Your task to perform on an android device: What's the news in India? Image 0: 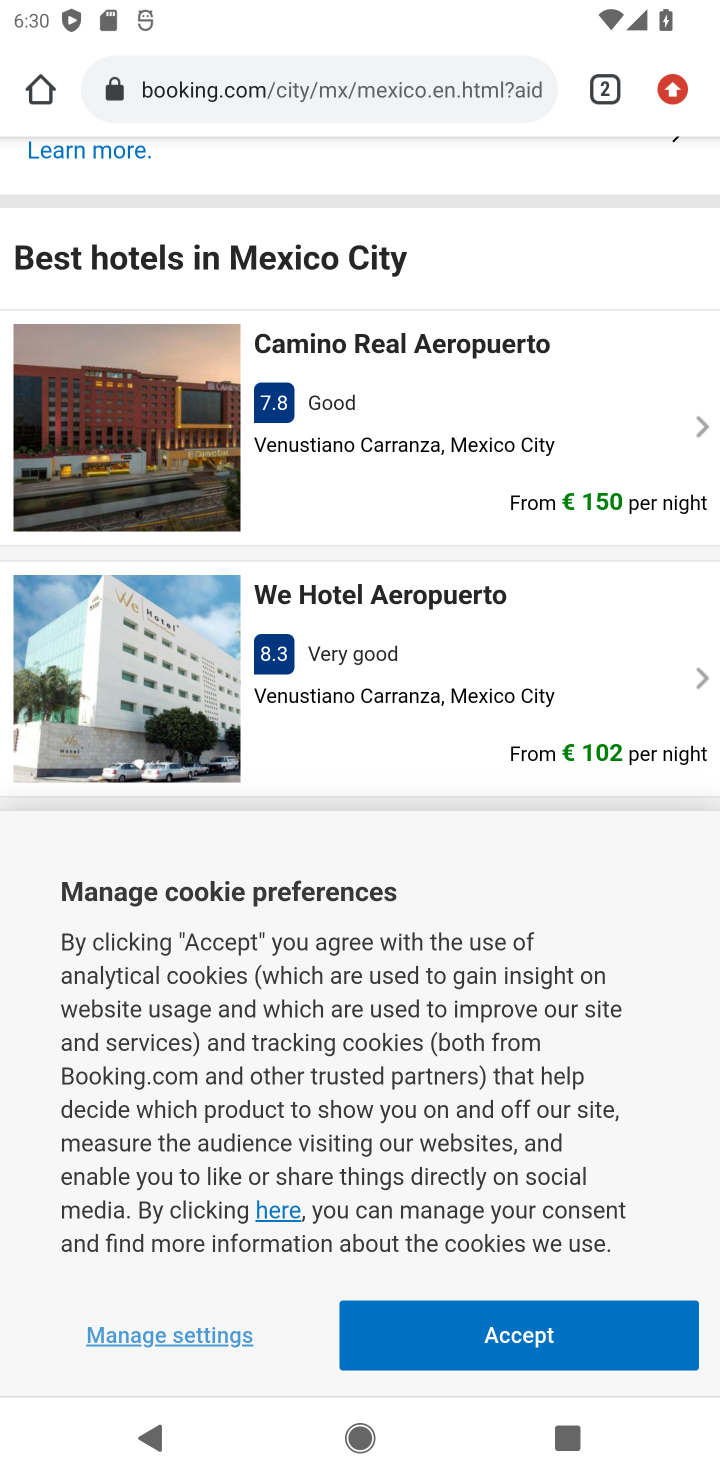
Step 0: click (303, 100)
Your task to perform on an android device: What's the news in India? Image 1: 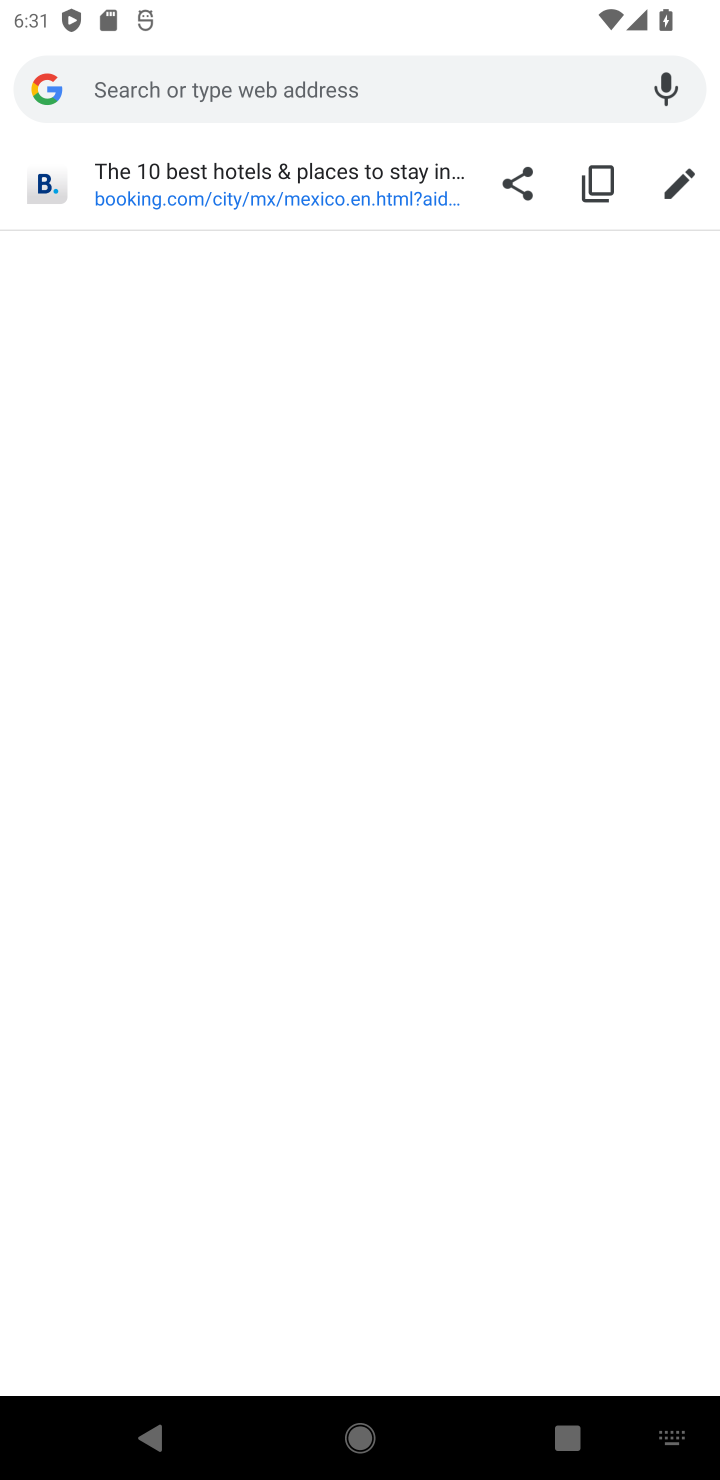
Step 1: type "india news"
Your task to perform on an android device: What's the news in India? Image 2: 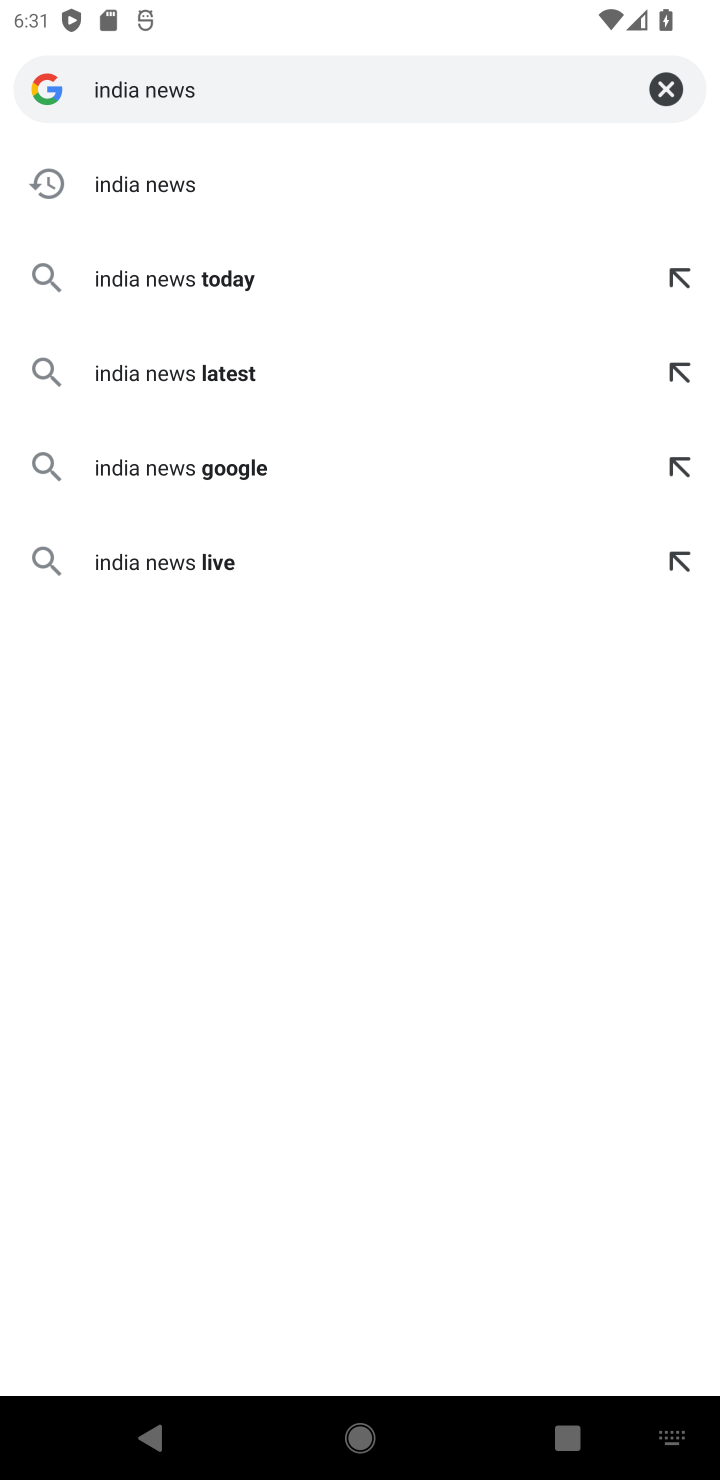
Step 2: click (149, 168)
Your task to perform on an android device: What's the news in India? Image 3: 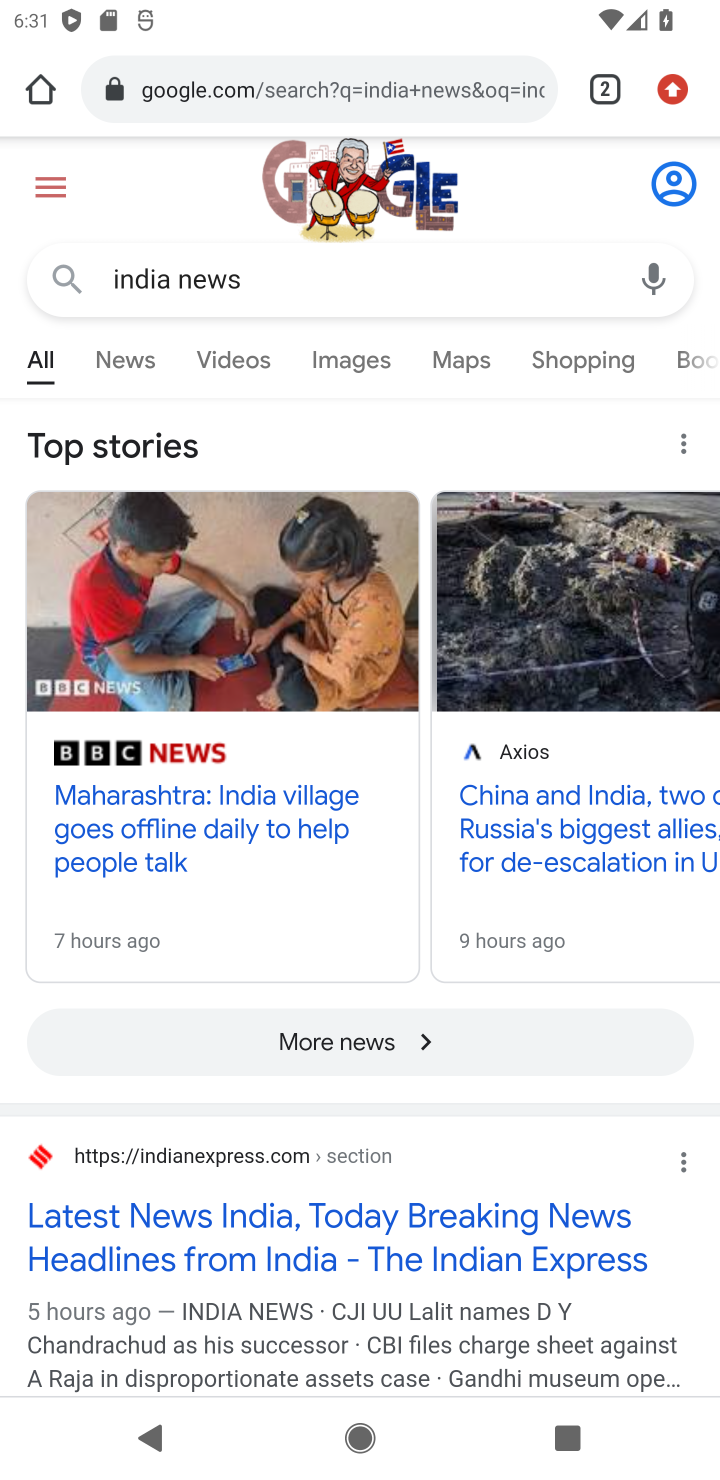
Step 3: click (171, 811)
Your task to perform on an android device: What's the news in India? Image 4: 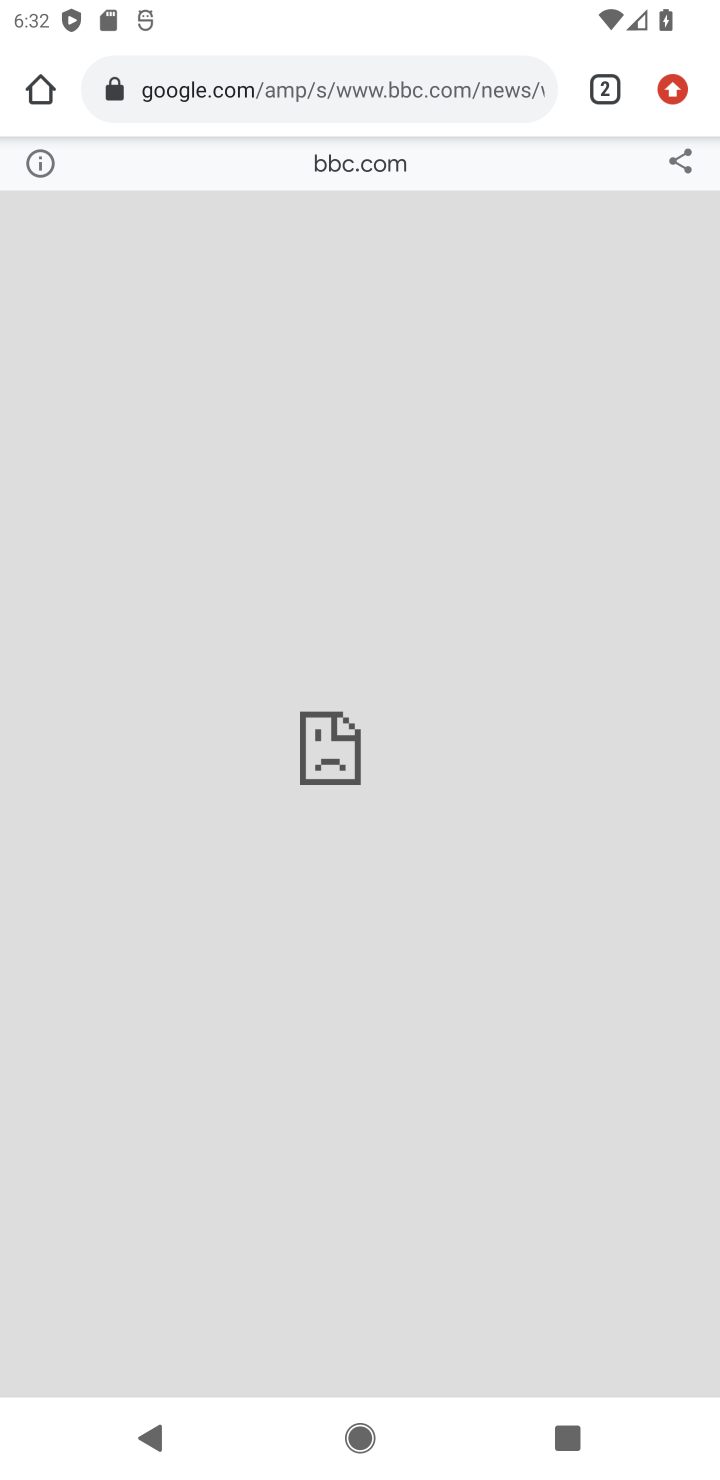
Step 4: click (317, 91)
Your task to perform on an android device: What's the news in India? Image 5: 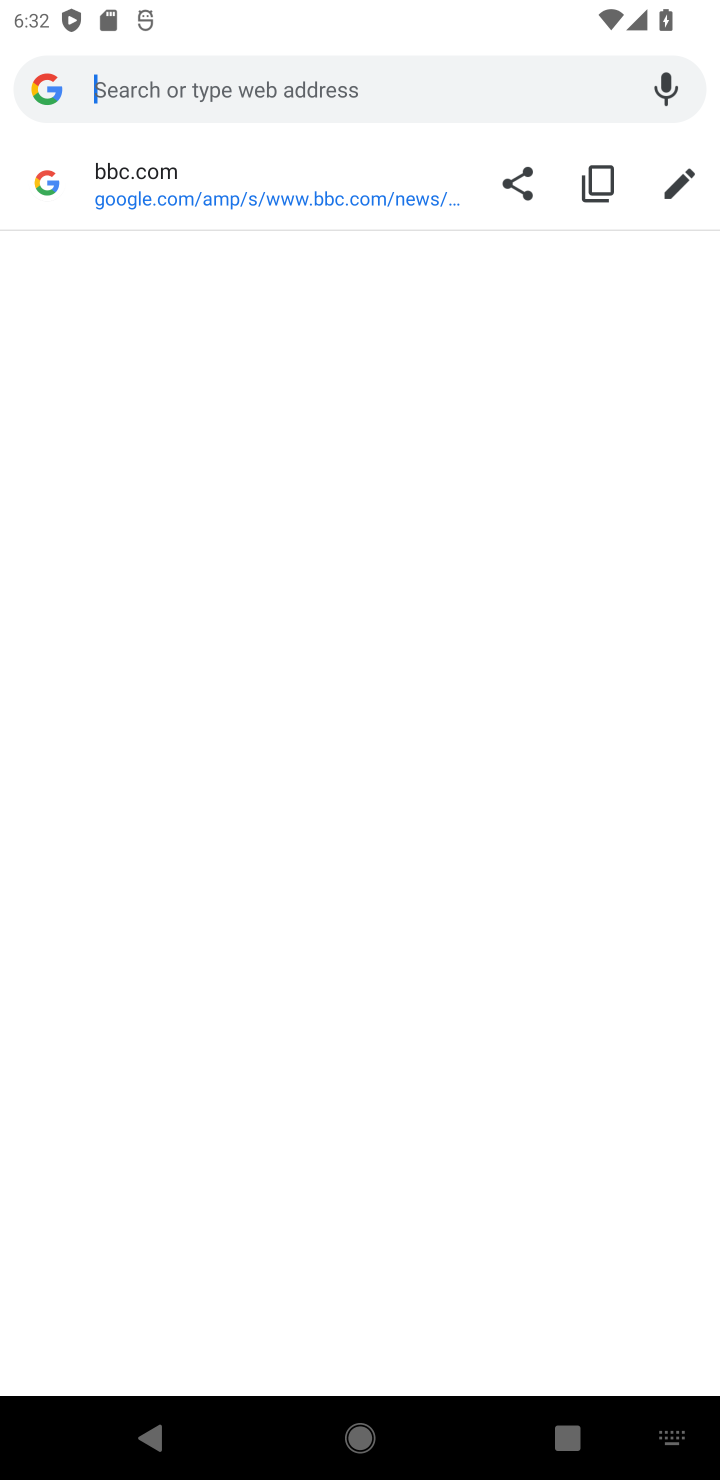
Step 5: type "india news"
Your task to perform on an android device: What's the news in India? Image 6: 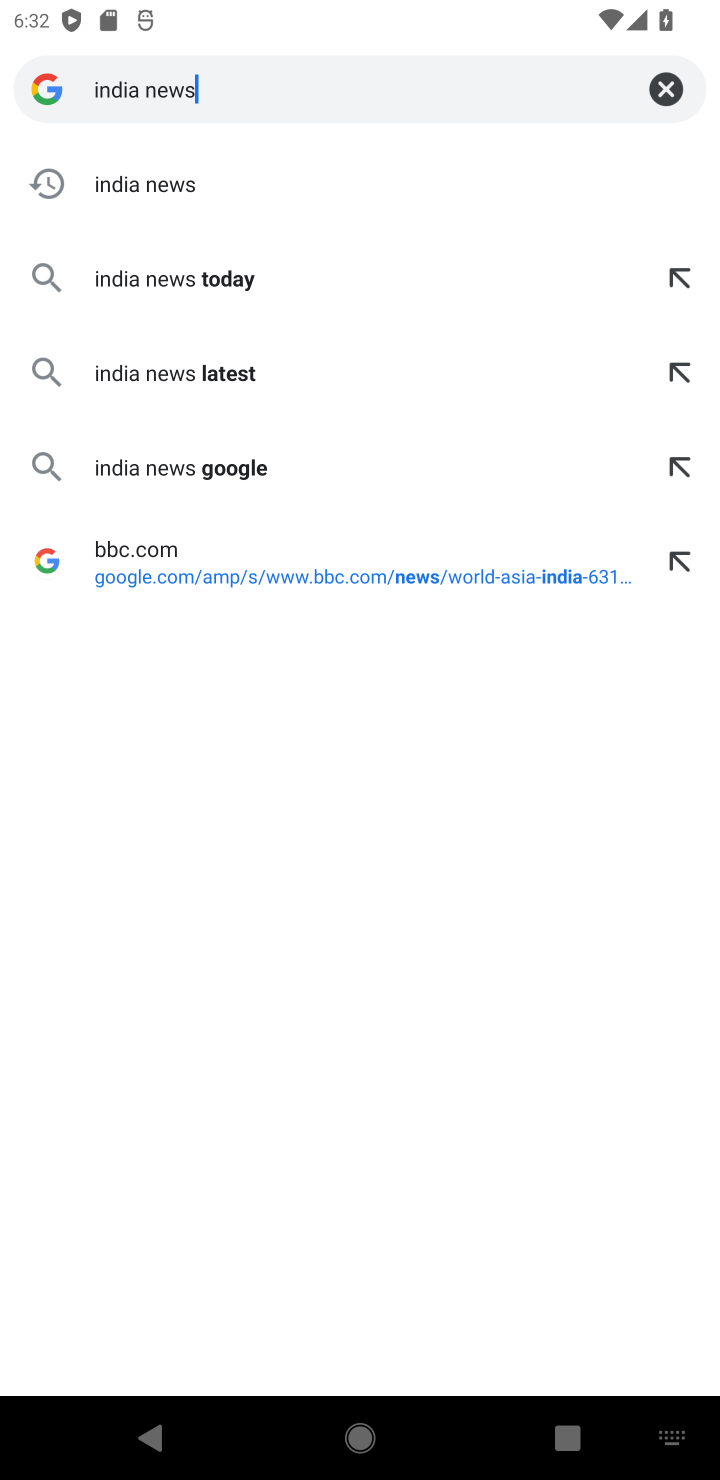
Step 6: click (189, 187)
Your task to perform on an android device: What's the news in India? Image 7: 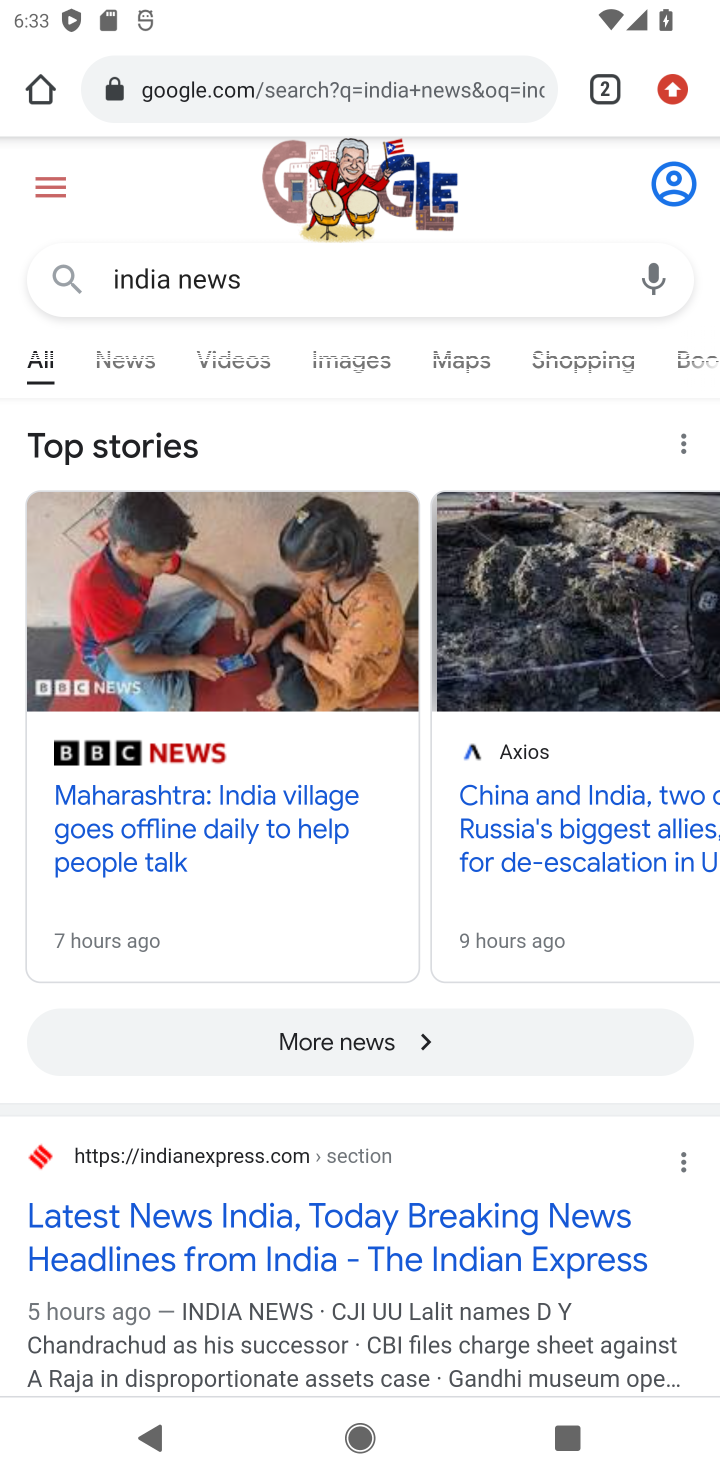
Step 7: click (129, 362)
Your task to perform on an android device: What's the news in India? Image 8: 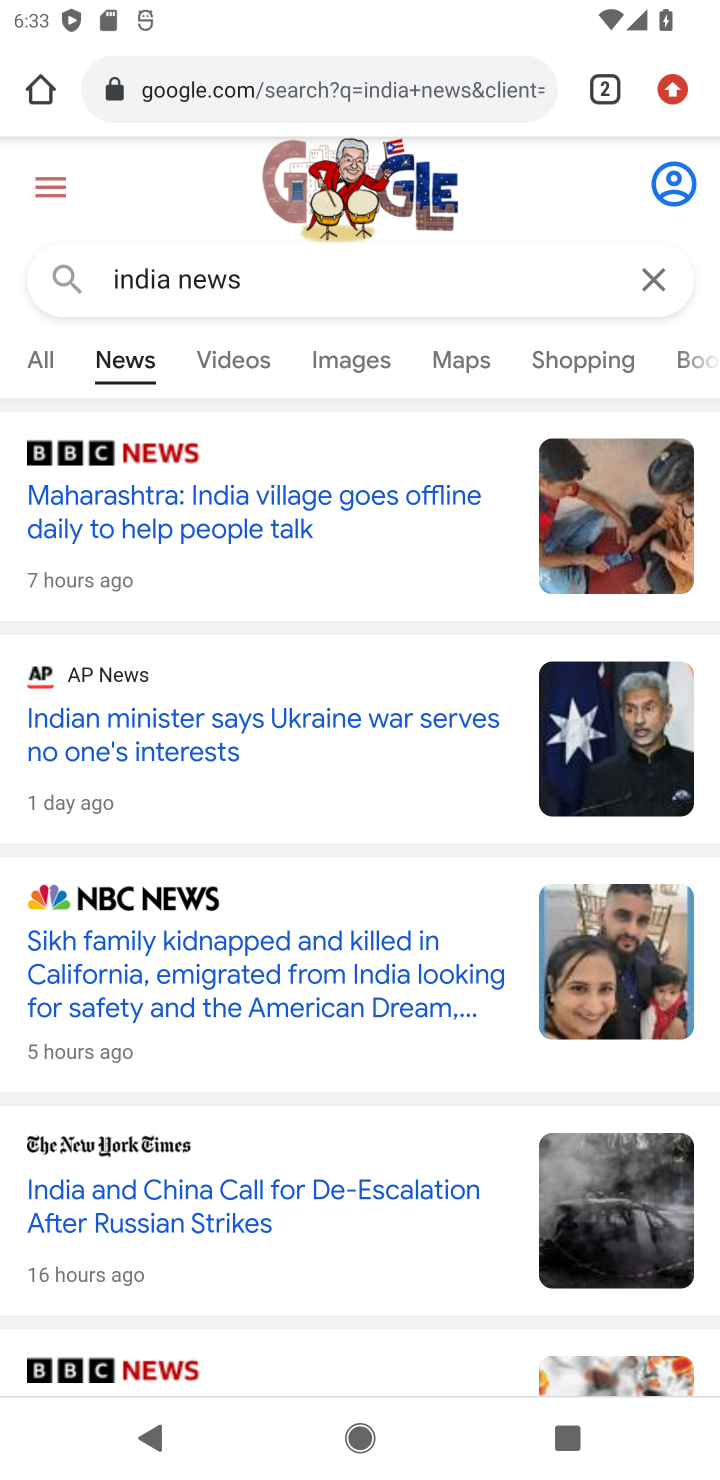
Step 8: click (162, 536)
Your task to perform on an android device: What's the news in India? Image 9: 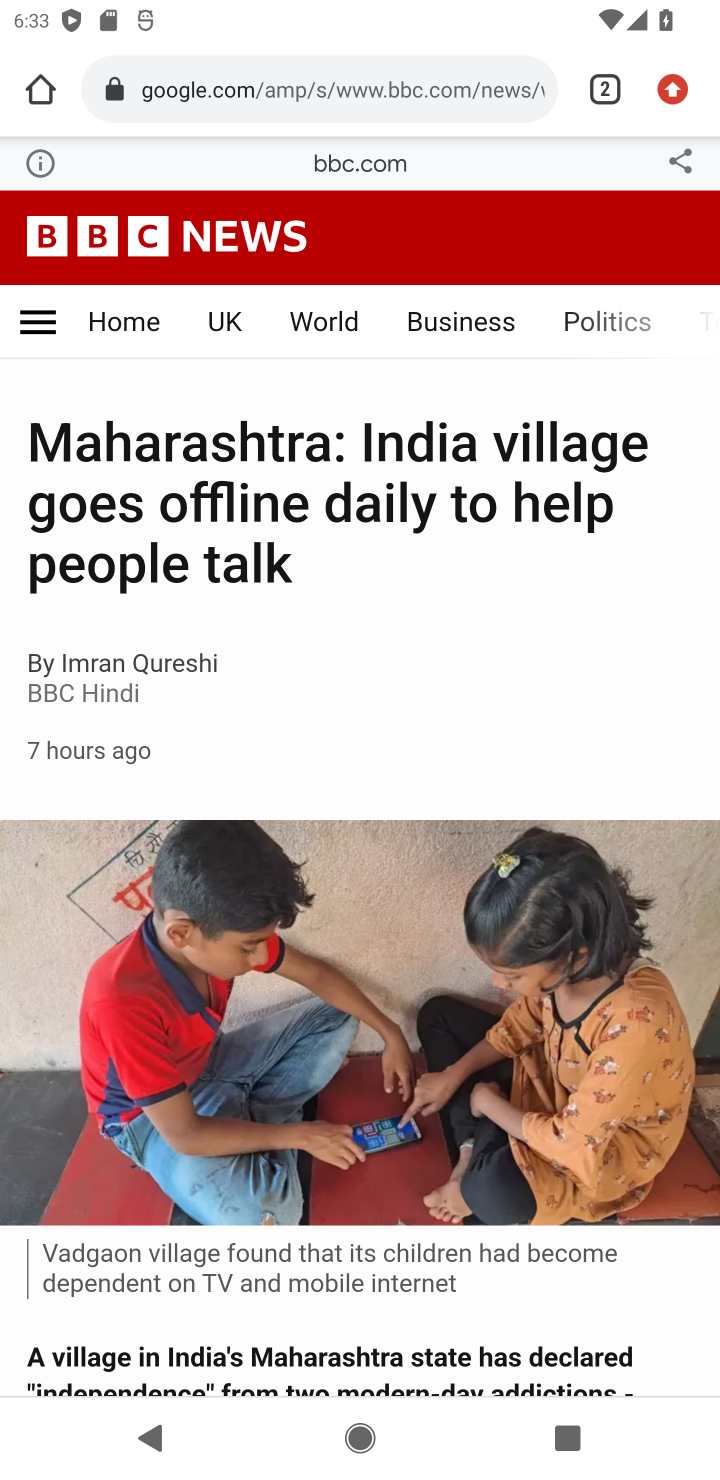
Step 9: task complete